Your task to perform on an android device: turn on priority inbox in the gmail app Image 0: 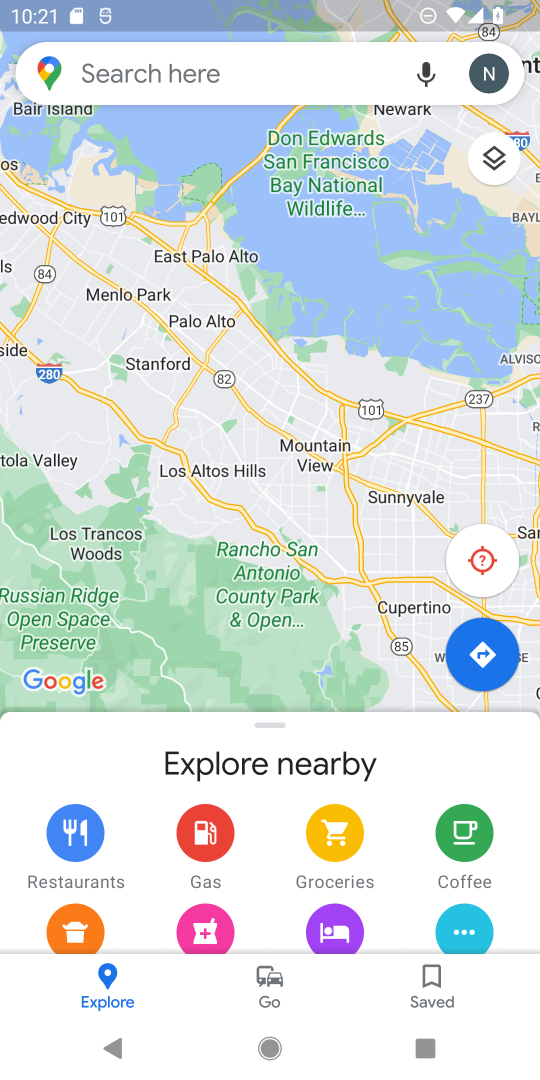
Step 0: press home button
Your task to perform on an android device: turn on priority inbox in the gmail app Image 1: 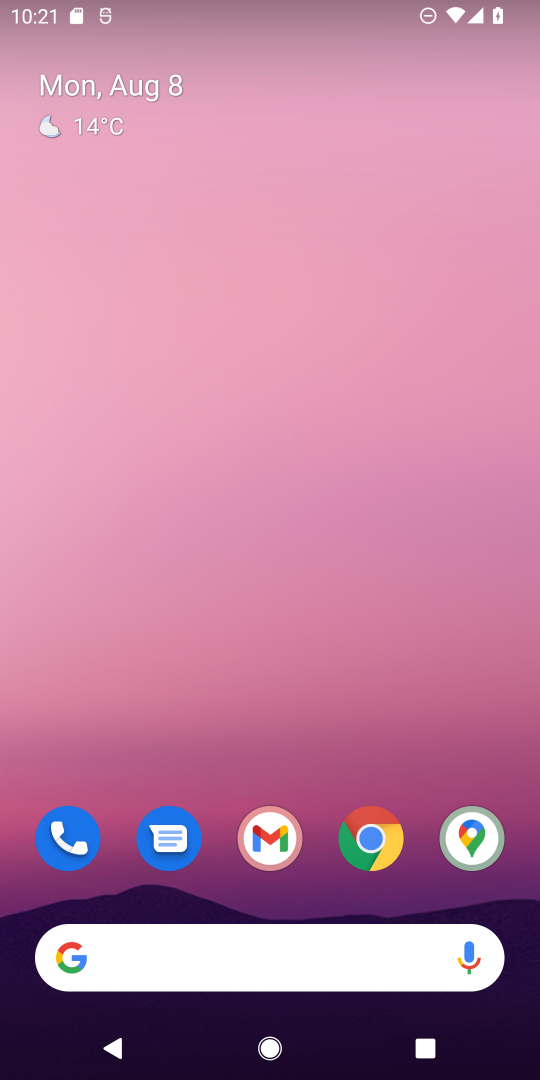
Step 1: click (268, 841)
Your task to perform on an android device: turn on priority inbox in the gmail app Image 2: 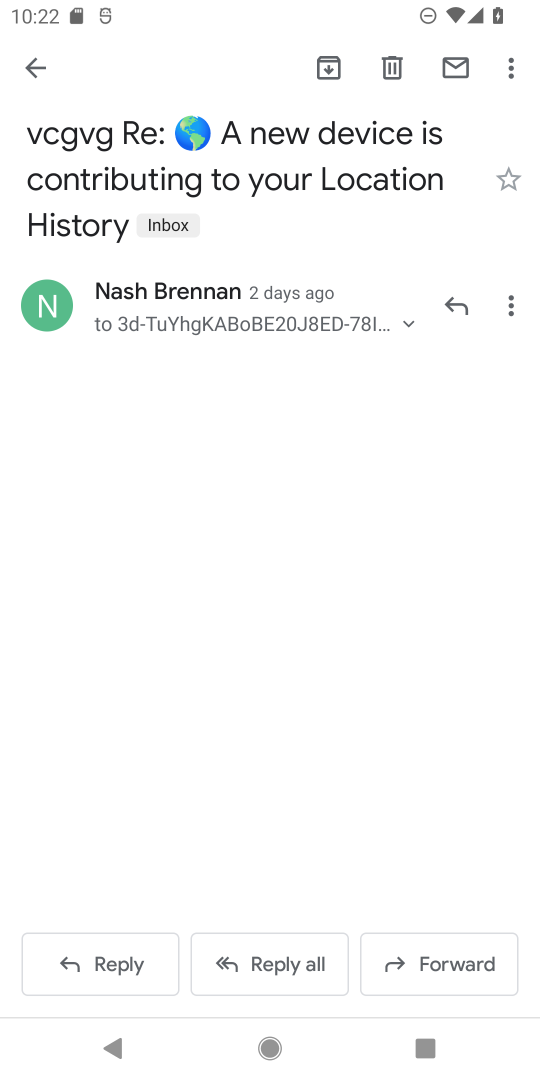
Step 2: click (30, 64)
Your task to perform on an android device: turn on priority inbox in the gmail app Image 3: 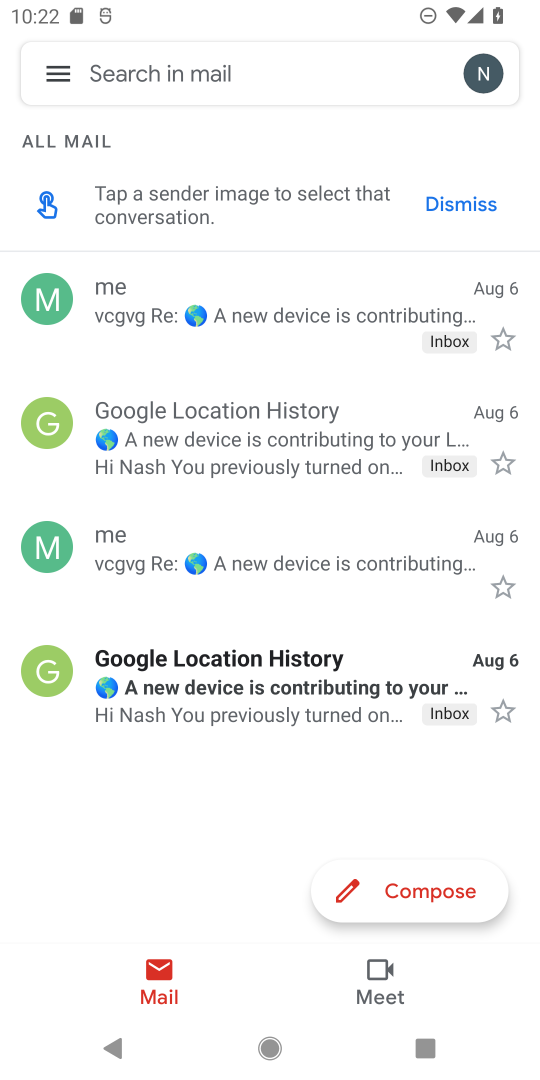
Step 3: click (57, 69)
Your task to perform on an android device: turn on priority inbox in the gmail app Image 4: 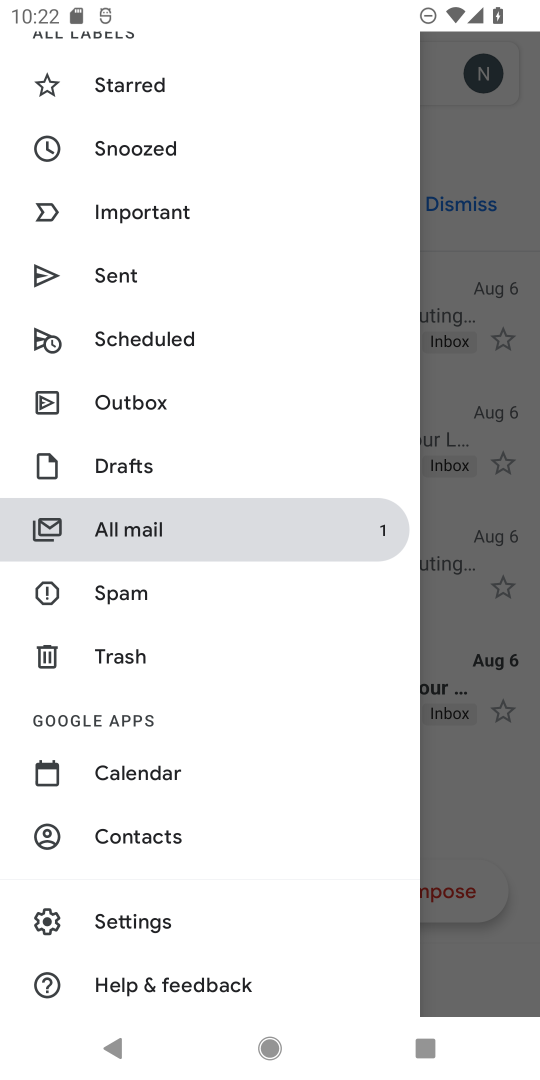
Step 4: click (118, 924)
Your task to perform on an android device: turn on priority inbox in the gmail app Image 5: 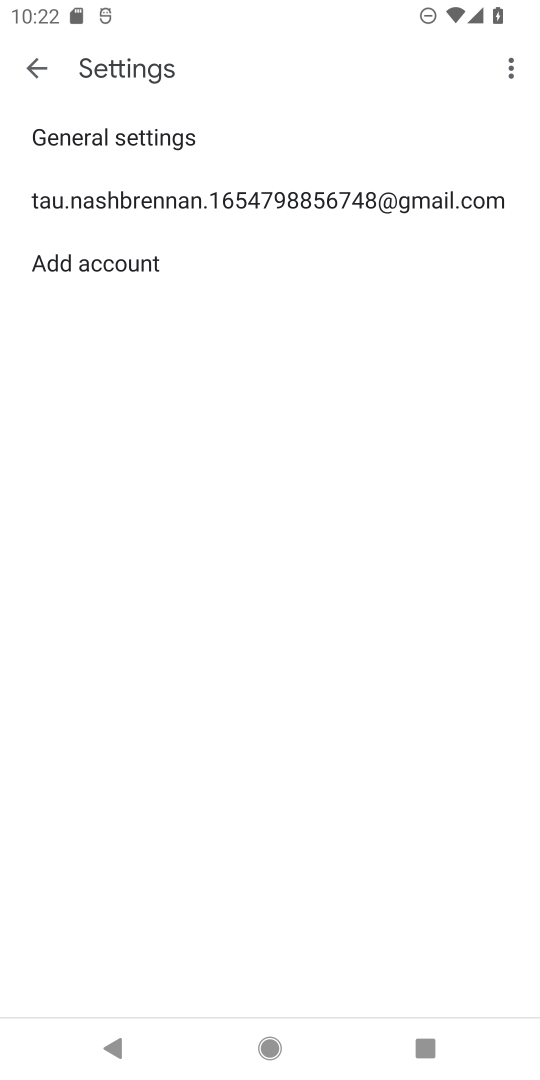
Step 5: click (299, 192)
Your task to perform on an android device: turn on priority inbox in the gmail app Image 6: 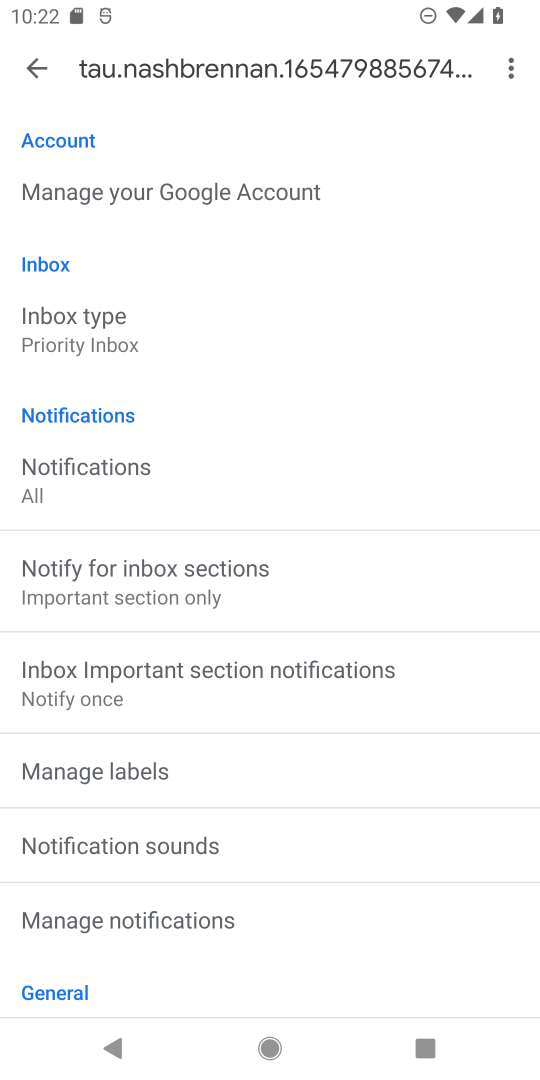
Step 6: click (69, 333)
Your task to perform on an android device: turn on priority inbox in the gmail app Image 7: 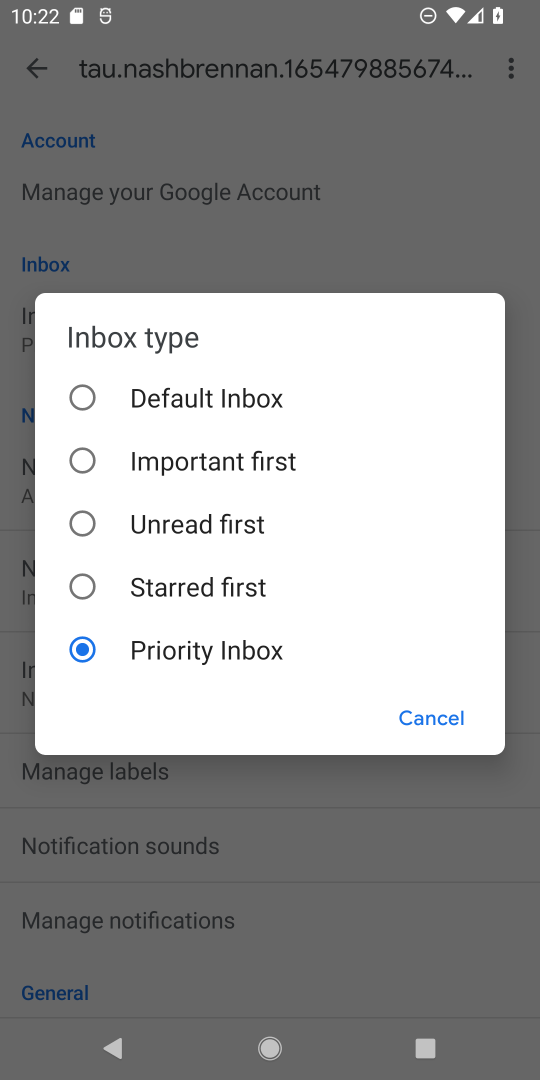
Step 7: task complete